Your task to perform on an android device: Open Amazon Image 0: 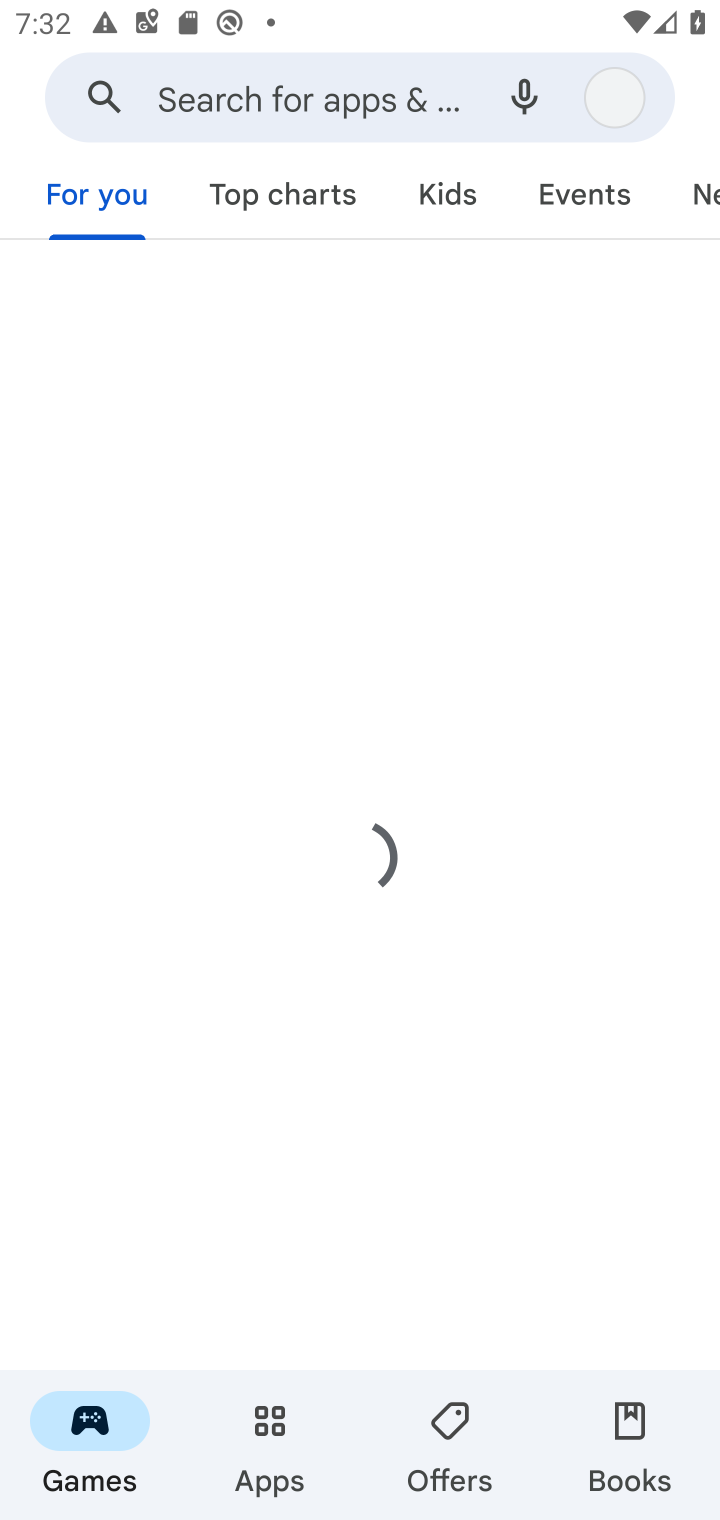
Step 0: press home button
Your task to perform on an android device: Open Amazon Image 1: 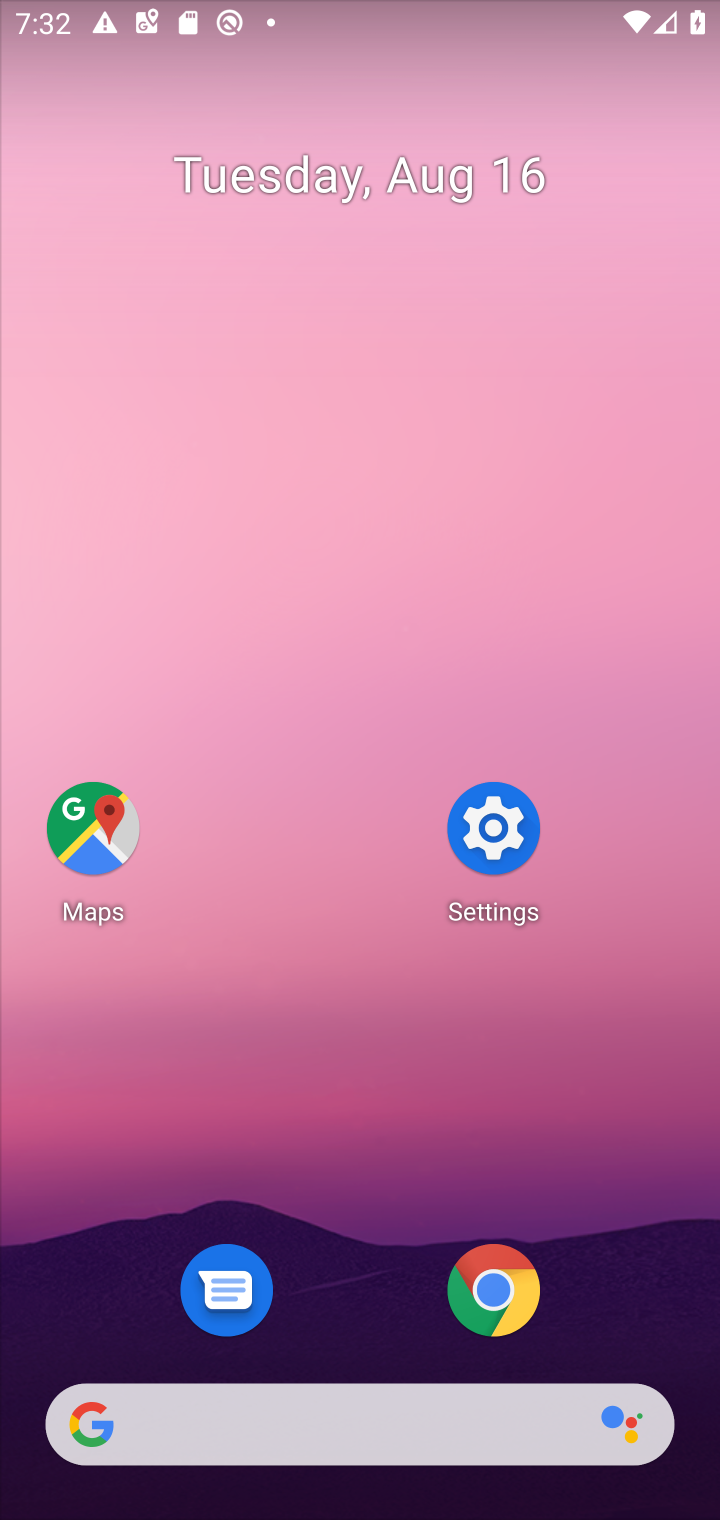
Step 1: click (500, 1301)
Your task to perform on an android device: Open Amazon Image 2: 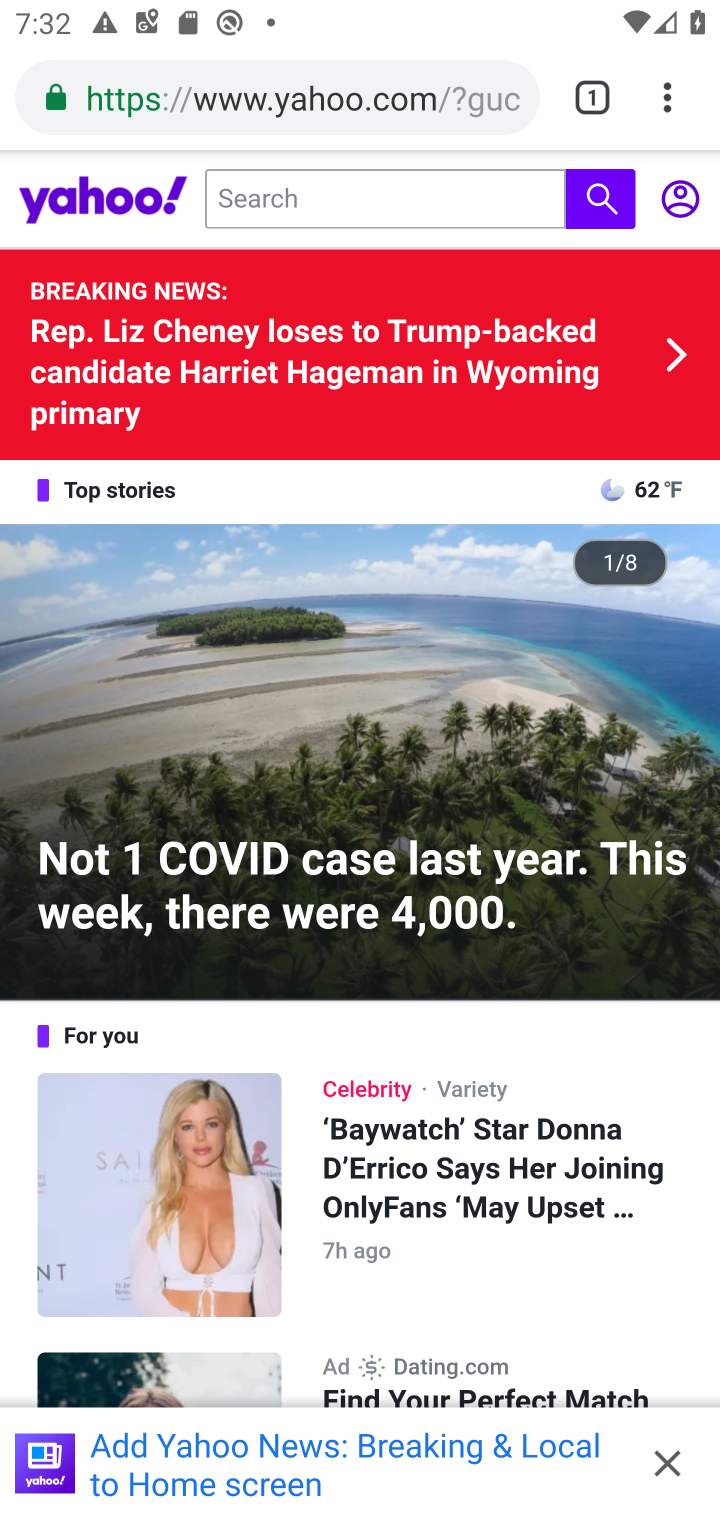
Step 2: drag from (672, 97) to (380, 321)
Your task to perform on an android device: Open Amazon Image 3: 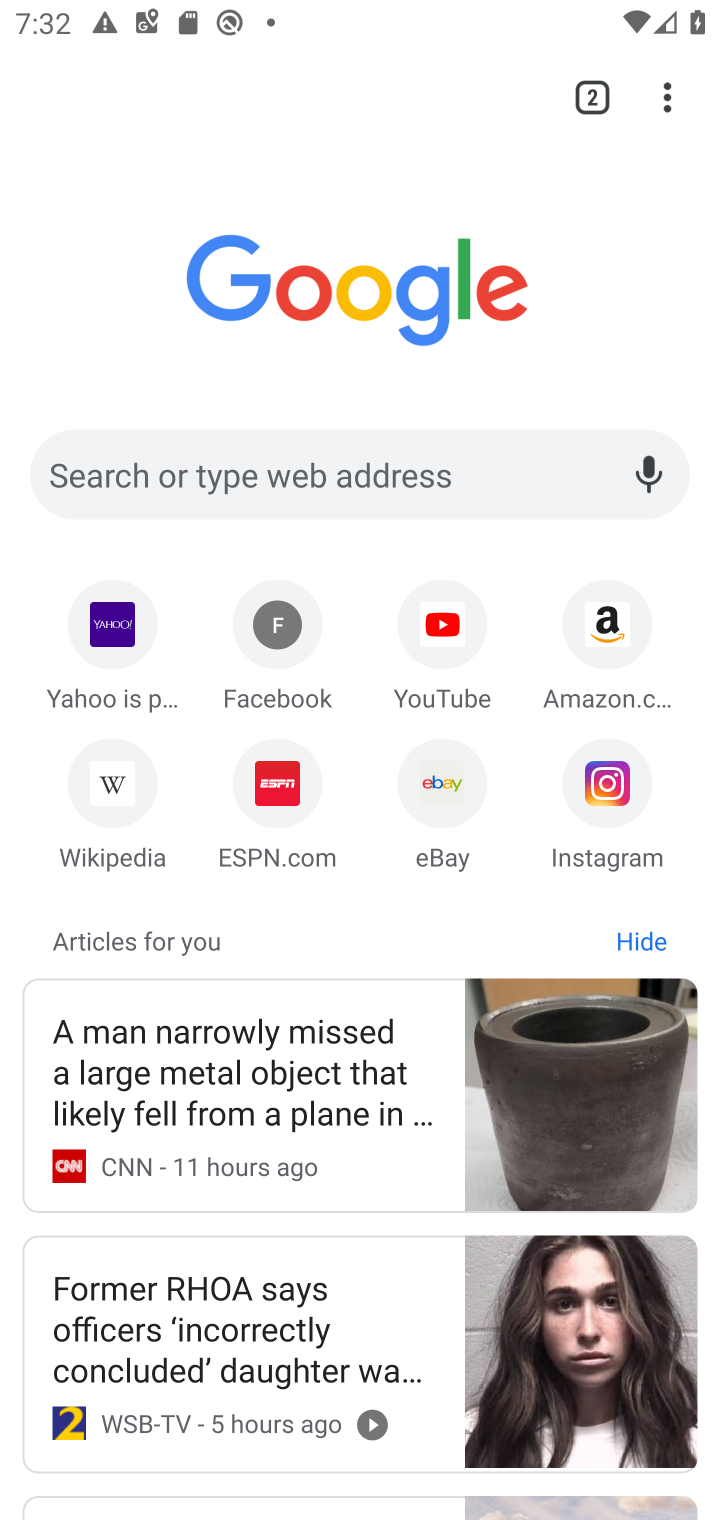
Step 3: click (615, 633)
Your task to perform on an android device: Open Amazon Image 4: 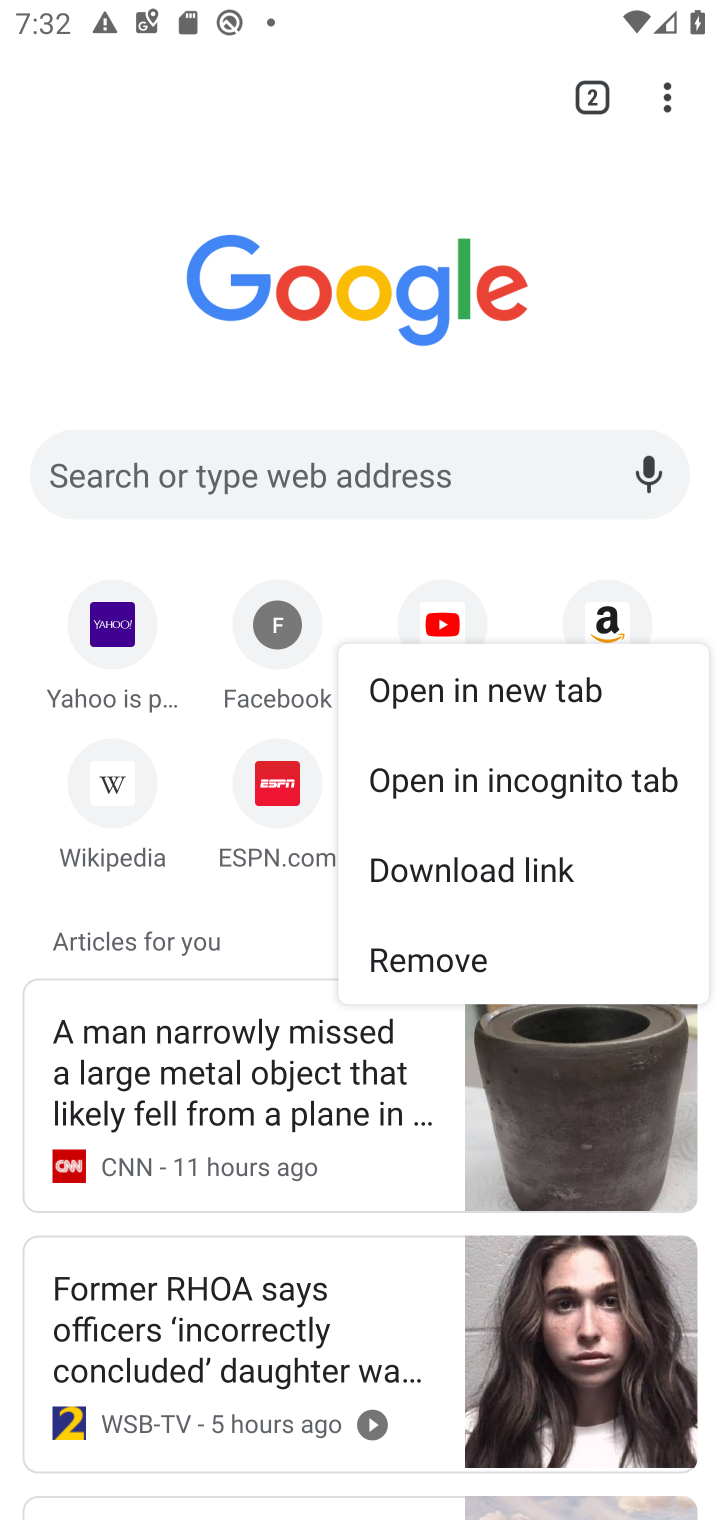
Step 4: click (609, 617)
Your task to perform on an android device: Open Amazon Image 5: 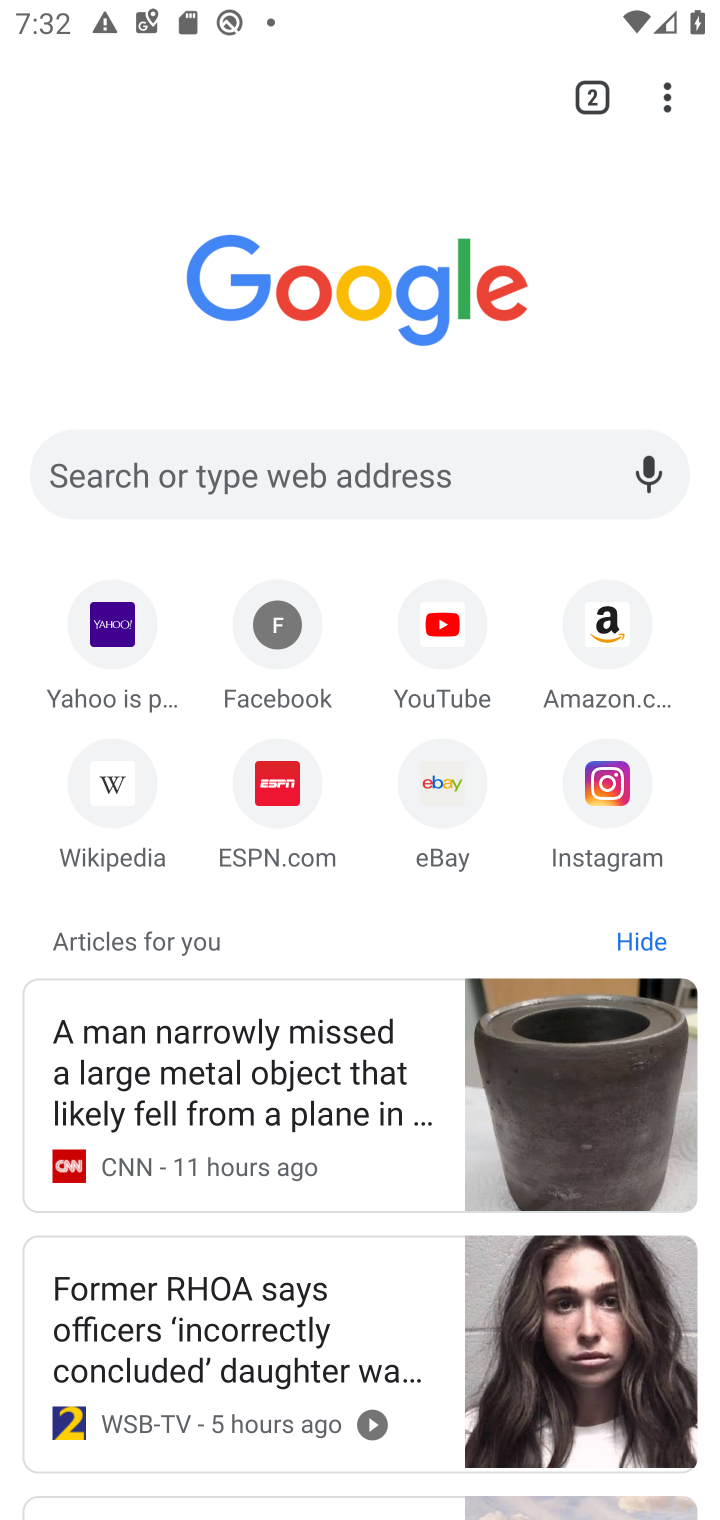
Step 5: click (609, 617)
Your task to perform on an android device: Open Amazon Image 6: 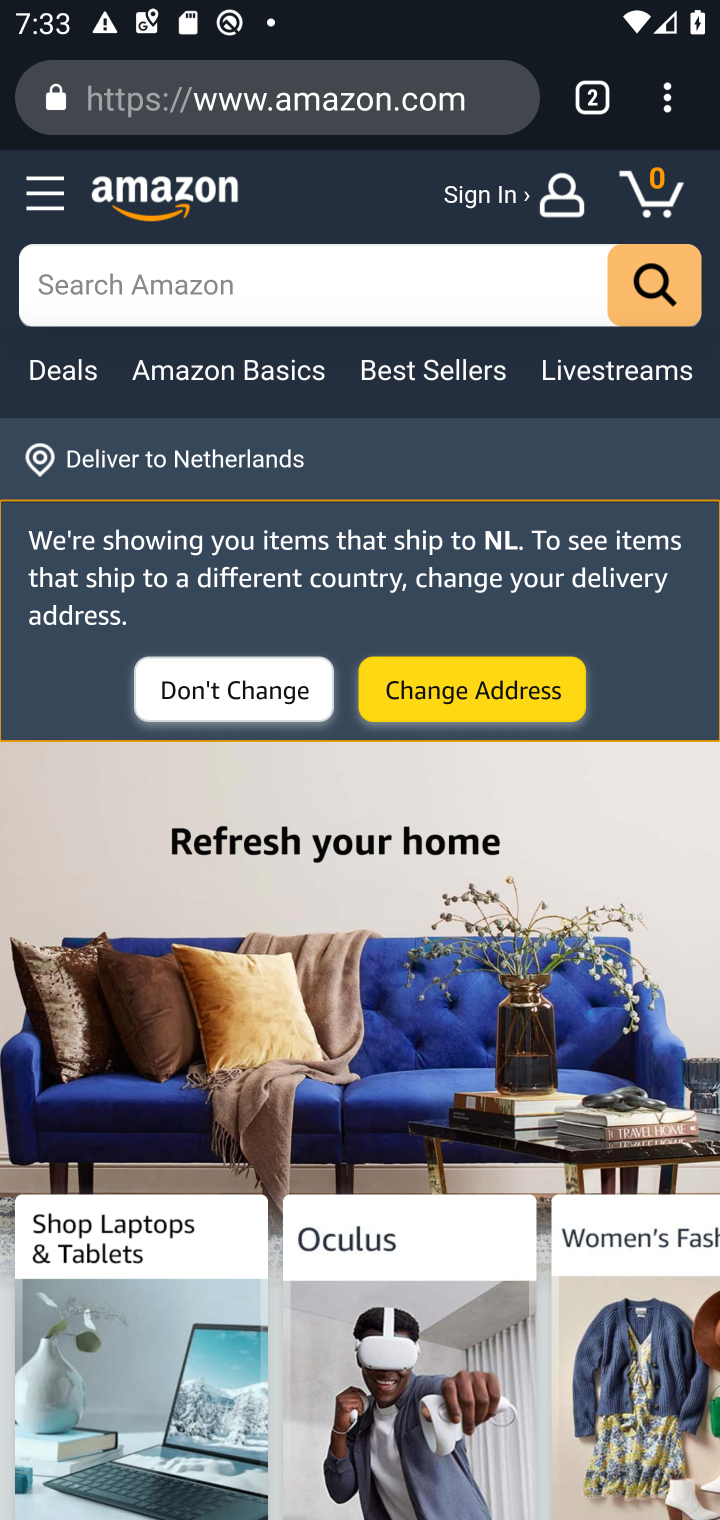
Step 6: task complete